Your task to perform on an android device: check storage Image 0: 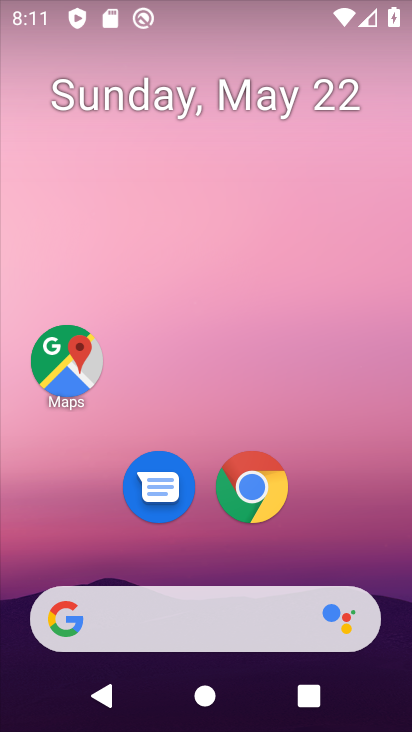
Step 0: drag from (391, 454) to (337, 16)
Your task to perform on an android device: check storage Image 1: 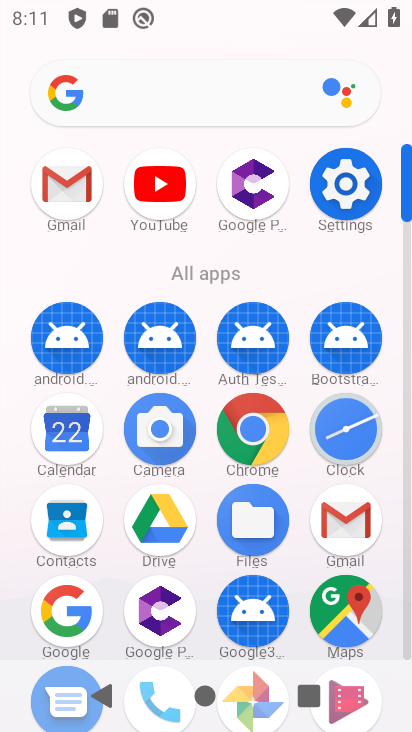
Step 1: click (362, 185)
Your task to perform on an android device: check storage Image 2: 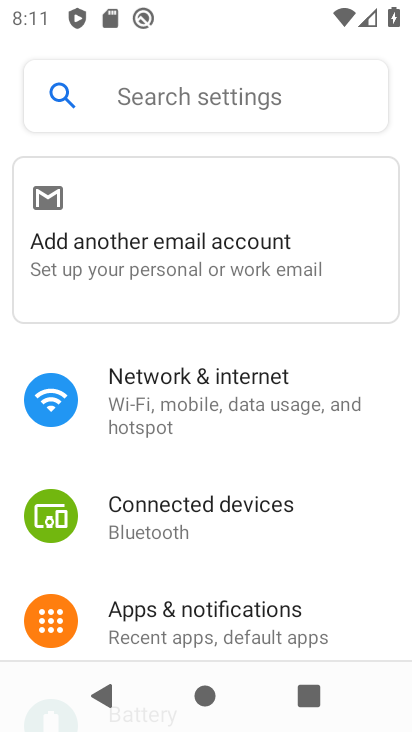
Step 2: drag from (251, 588) to (287, 66)
Your task to perform on an android device: check storage Image 3: 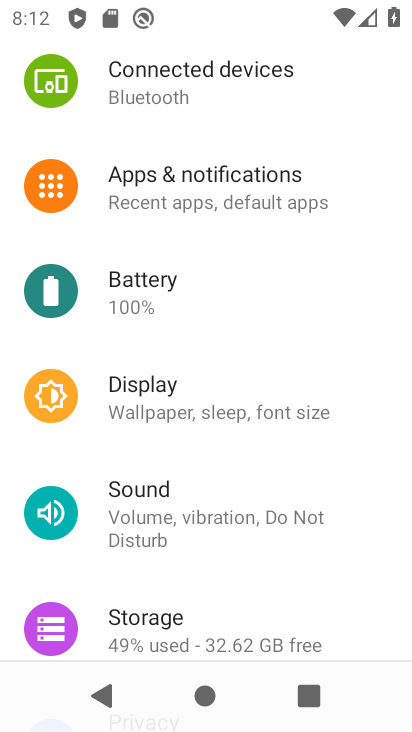
Step 3: drag from (259, 563) to (266, 196)
Your task to perform on an android device: check storage Image 4: 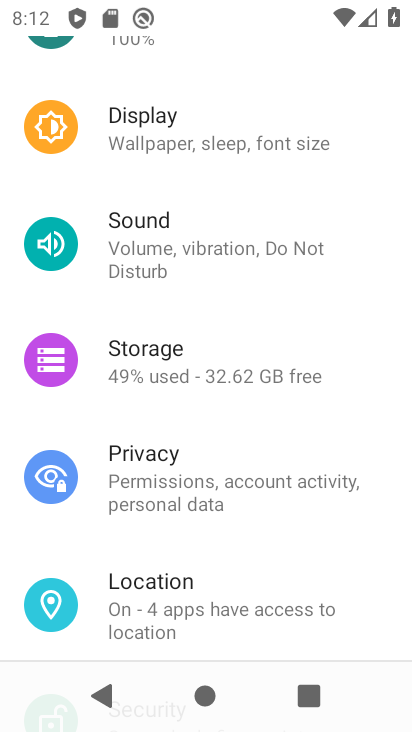
Step 4: click (133, 374)
Your task to perform on an android device: check storage Image 5: 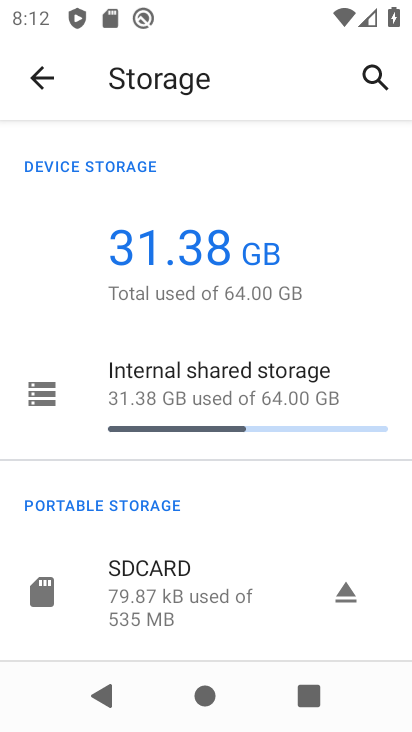
Step 5: task complete